Your task to perform on an android device: Open Google Chrome Image 0: 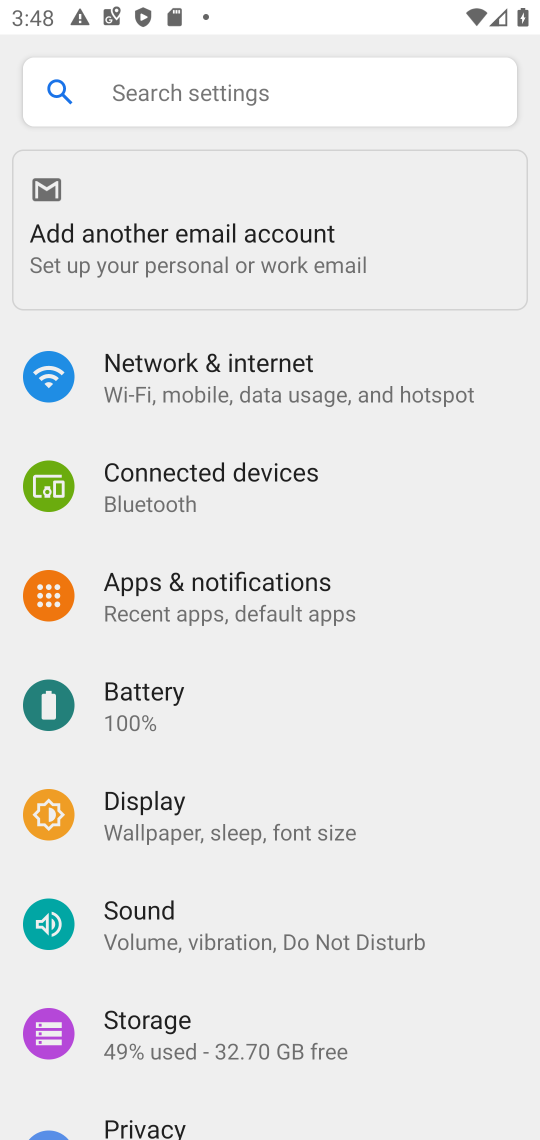
Step 0: press home button
Your task to perform on an android device: Open Google Chrome Image 1: 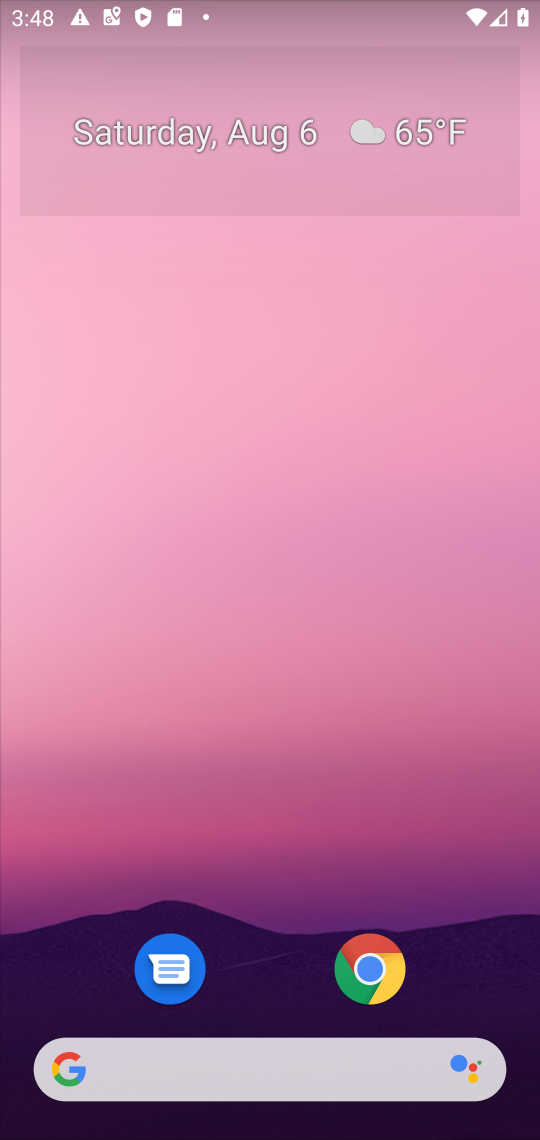
Step 1: click (368, 971)
Your task to perform on an android device: Open Google Chrome Image 2: 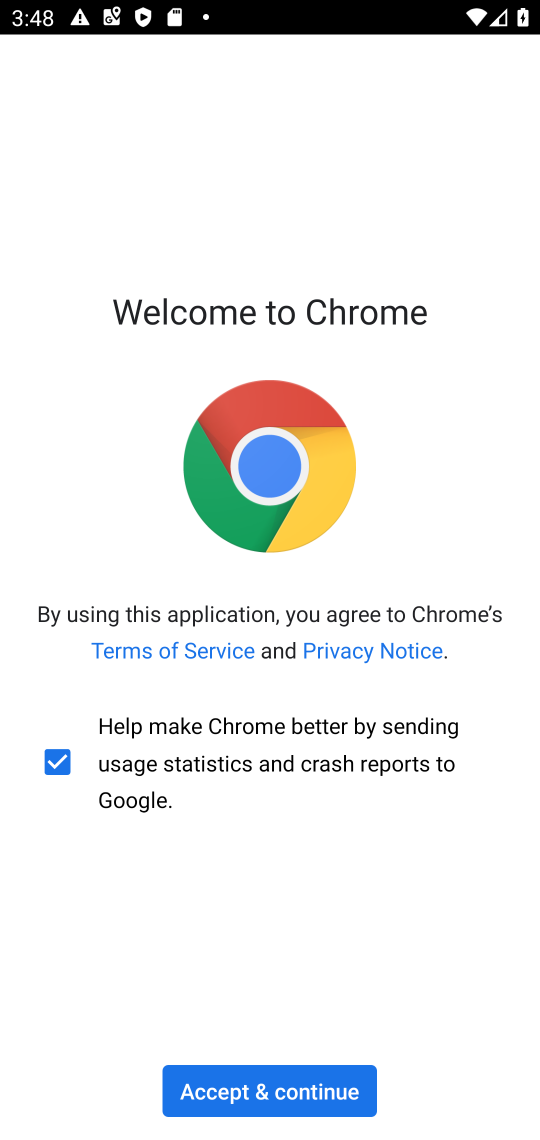
Step 2: click (259, 1109)
Your task to perform on an android device: Open Google Chrome Image 3: 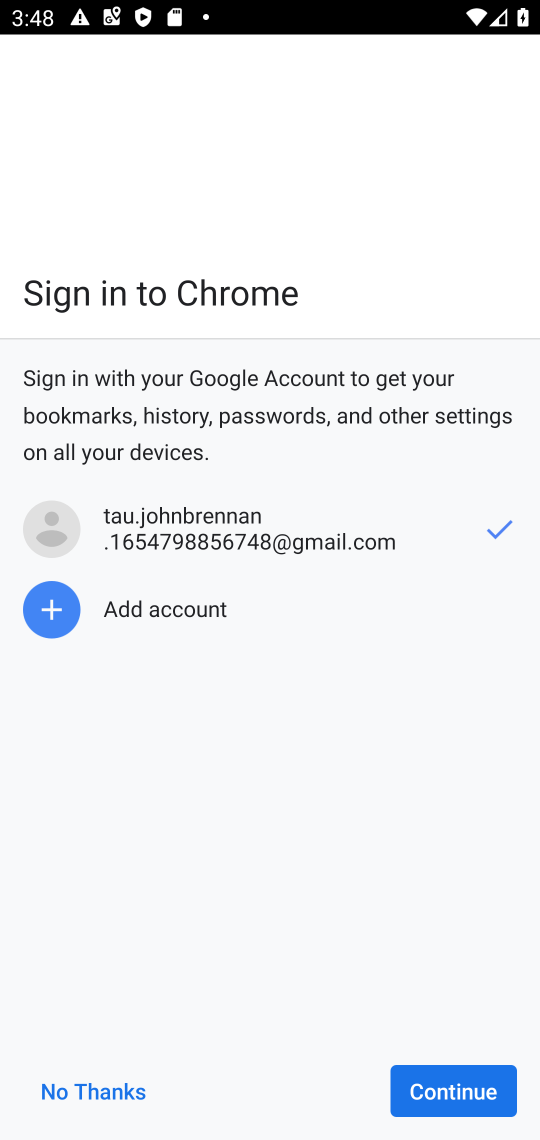
Step 3: click (441, 1080)
Your task to perform on an android device: Open Google Chrome Image 4: 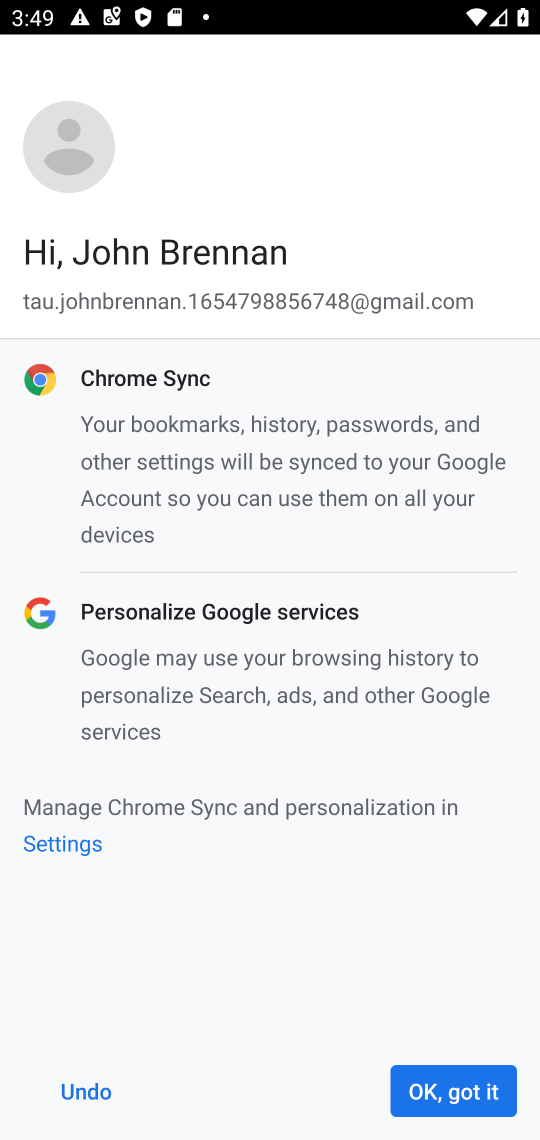
Step 4: click (449, 1104)
Your task to perform on an android device: Open Google Chrome Image 5: 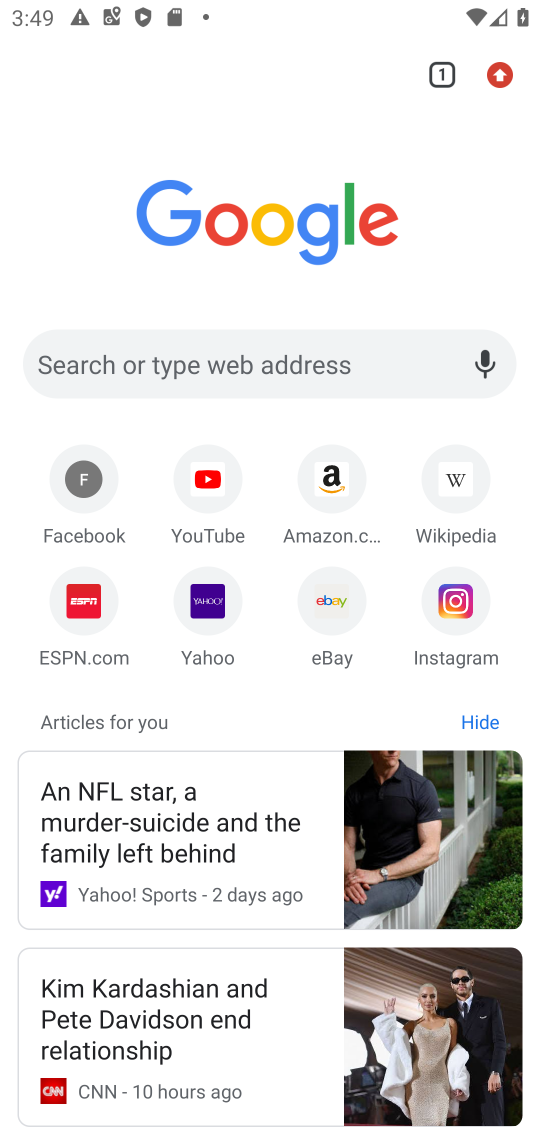
Step 5: task complete